Your task to perform on an android device: Open the stopwatch Image 0: 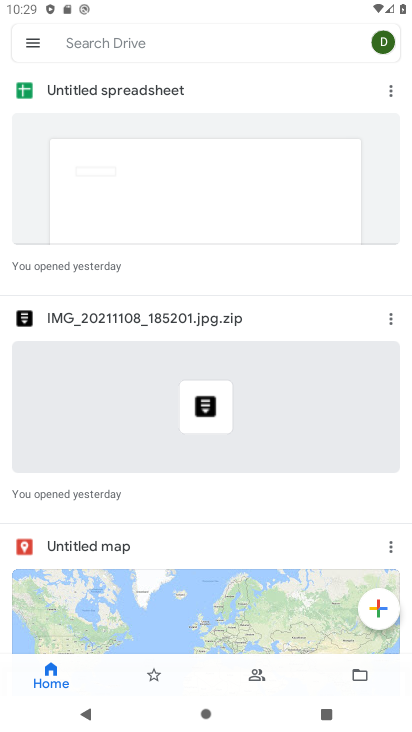
Step 0: press home button
Your task to perform on an android device: Open the stopwatch Image 1: 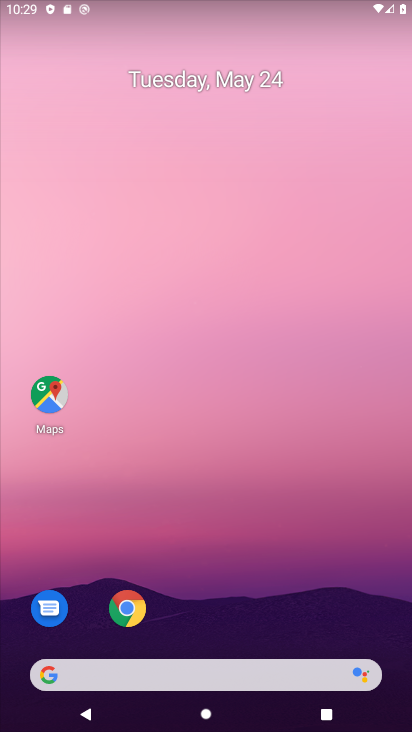
Step 1: drag from (385, 593) to (313, 127)
Your task to perform on an android device: Open the stopwatch Image 2: 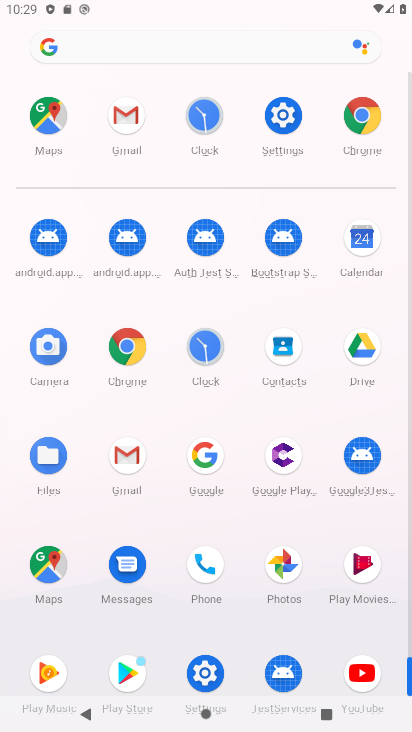
Step 2: click (203, 346)
Your task to perform on an android device: Open the stopwatch Image 3: 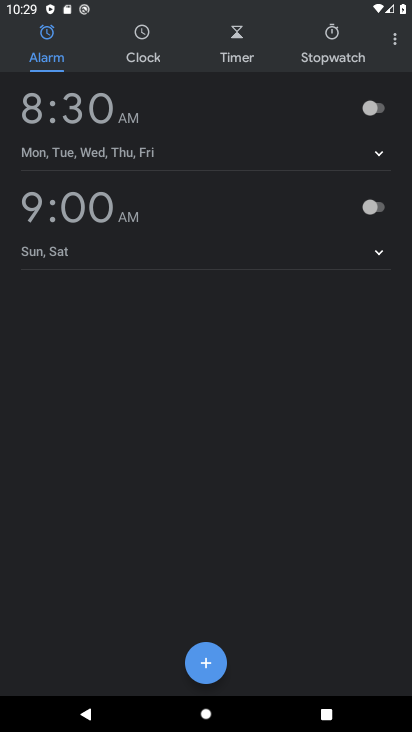
Step 3: click (328, 34)
Your task to perform on an android device: Open the stopwatch Image 4: 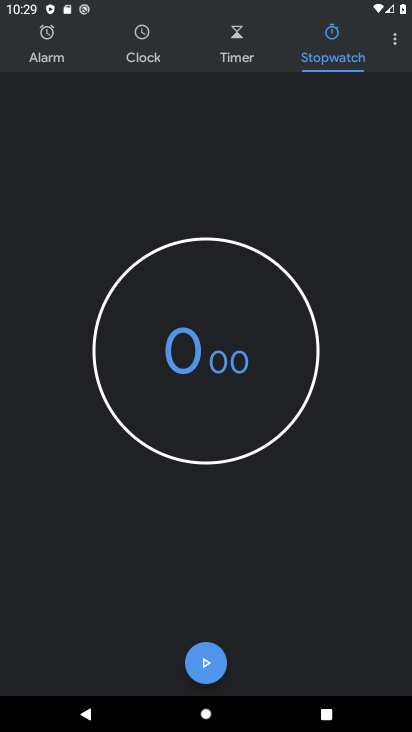
Step 4: task complete